Your task to perform on an android device: change the clock style Image 0: 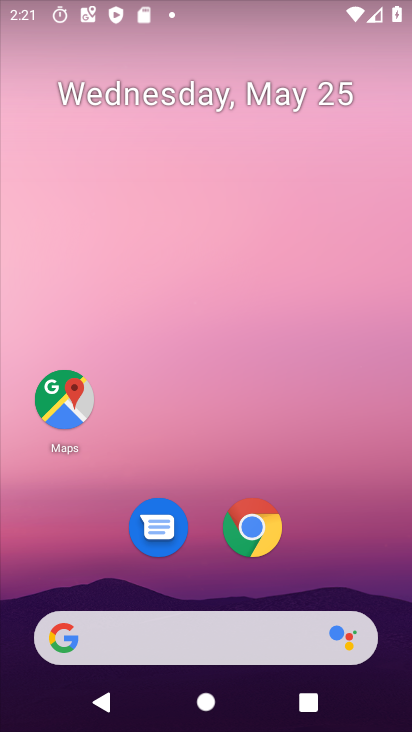
Step 0: drag from (187, 556) to (265, 172)
Your task to perform on an android device: change the clock style Image 1: 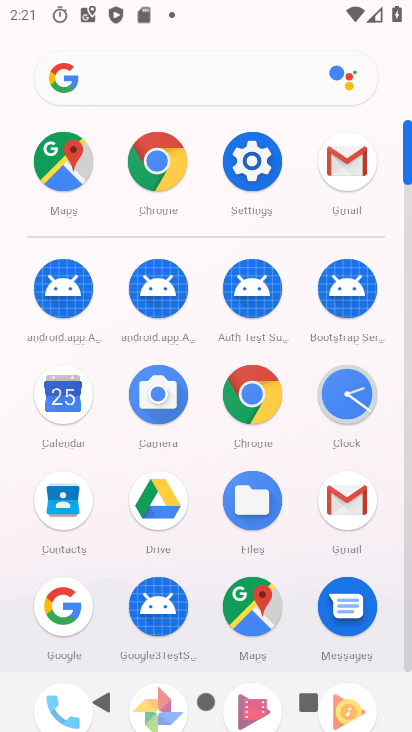
Step 1: click (356, 379)
Your task to perform on an android device: change the clock style Image 2: 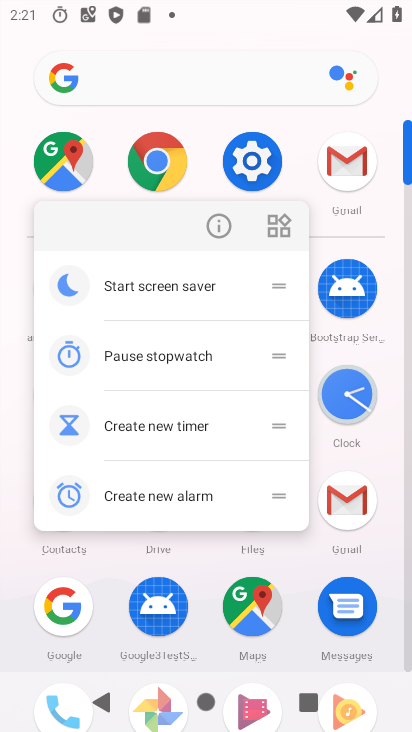
Step 2: click (220, 222)
Your task to perform on an android device: change the clock style Image 3: 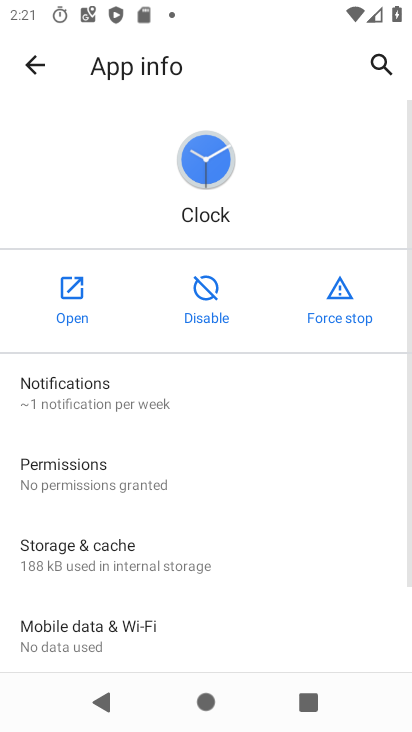
Step 3: click (78, 303)
Your task to perform on an android device: change the clock style Image 4: 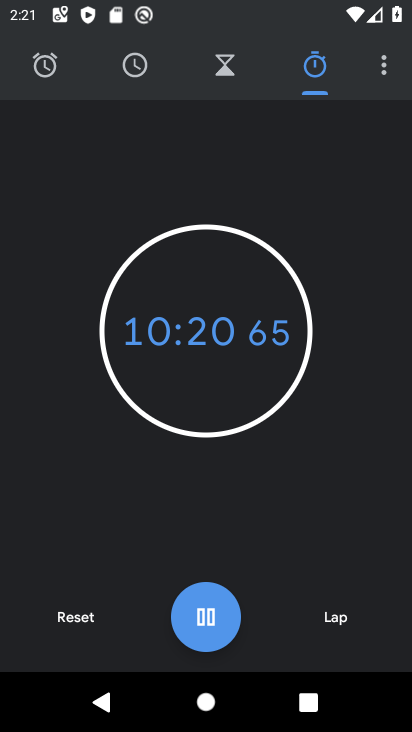
Step 4: click (69, 630)
Your task to perform on an android device: change the clock style Image 5: 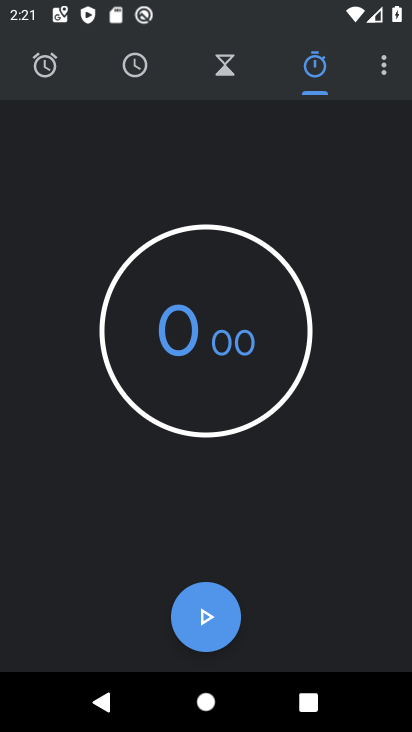
Step 5: click (387, 73)
Your task to perform on an android device: change the clock style Image 6: 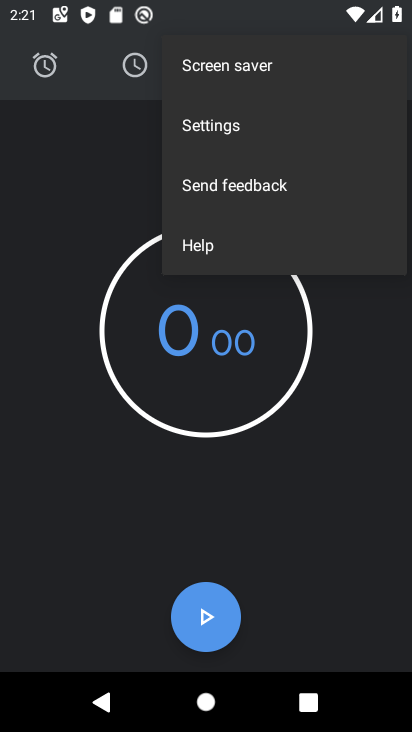
Step 6: click (201, 125)
Your task to perform on an android device: change the clock style Image 7: 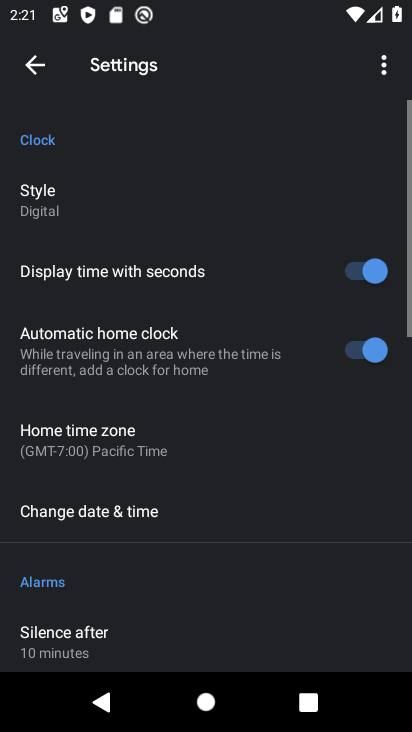
Step 7: click (101, 214)
Your task to perform on an android device: change the clock style Image 8: 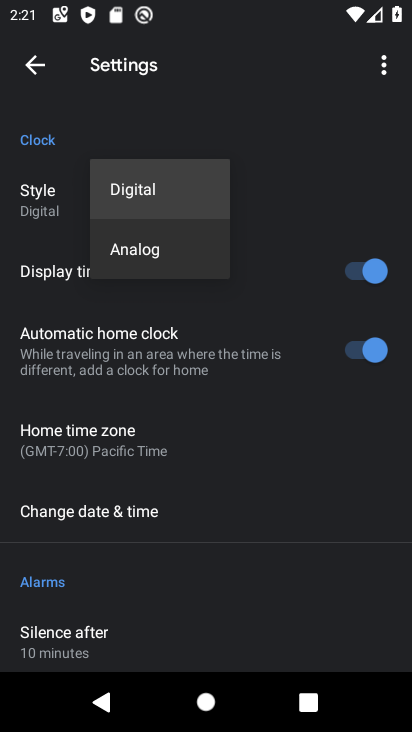
Step 8: click (142, 242)
Your task to perform on an android device: change the clock style Image 9: 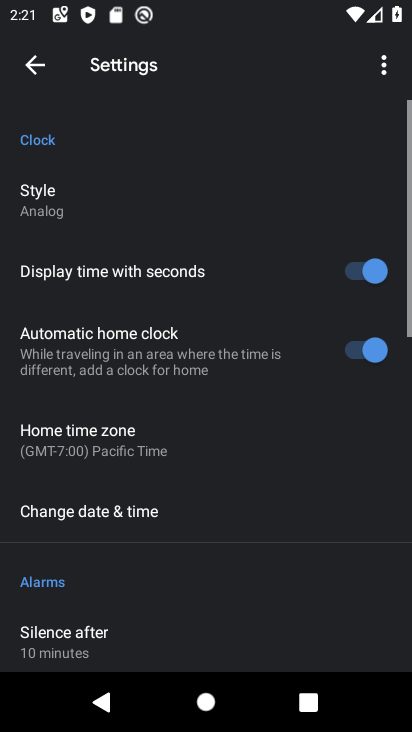
Step 9: task complete